Your task to perform on an android device: toggle pop-ups in chrome Image 0: 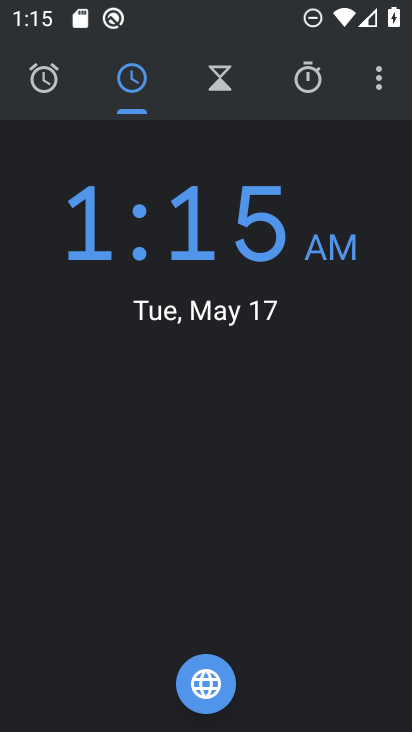
Step 0: press back button
Your task to perform on an android device: toggle pop-ups in chrome Image 1: 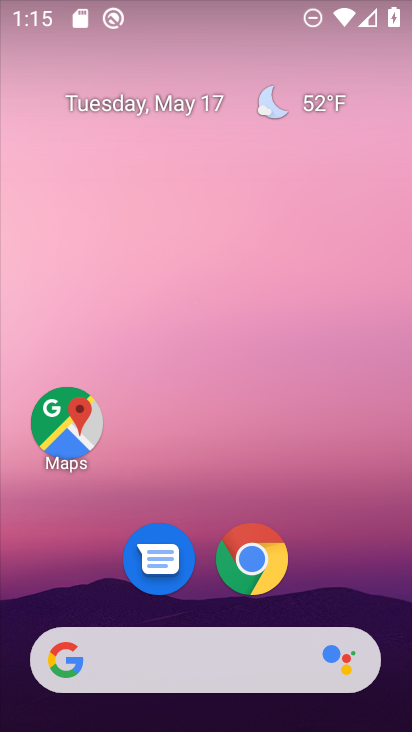
Step 1: click (256, 552)
Your task to perform on an android device: toggle pop-ups in chrome Image 2: 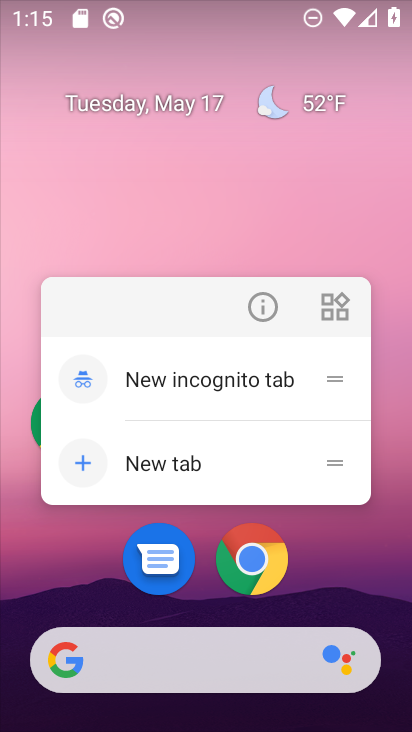
Step 2: click (249, 561)
Your task to perform on an android device: toggle pop-ups in chrome Image 3: 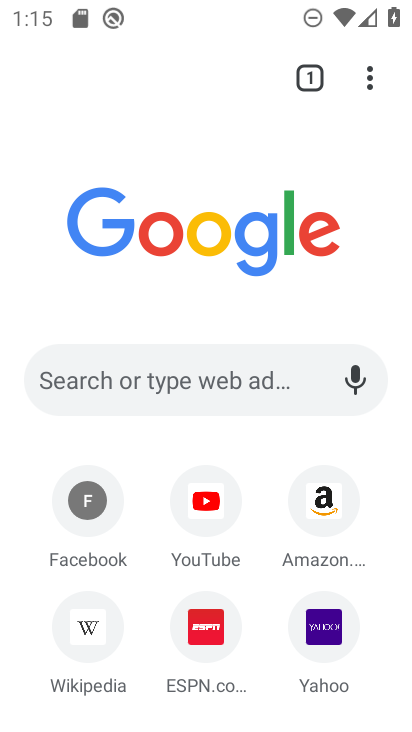
Step 3: click (369, 74)
Your task to perform on an android device: toggle pop-ups in chrome Image 4: 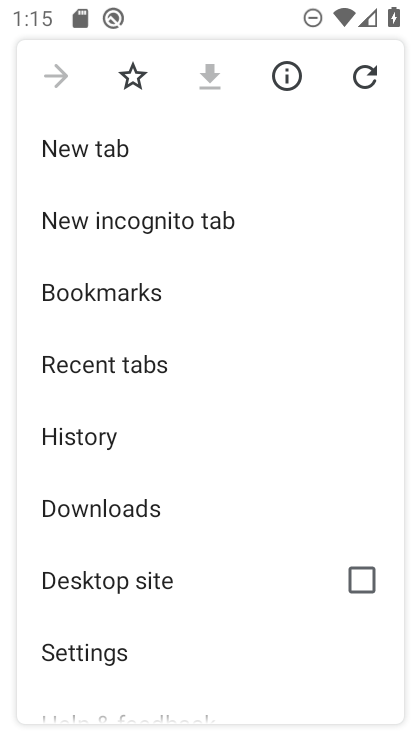
Step 4: drag from (235, 450) to (246, 346)
Your task to perform on an android device: toggle pop-ups in chrome Image 5: 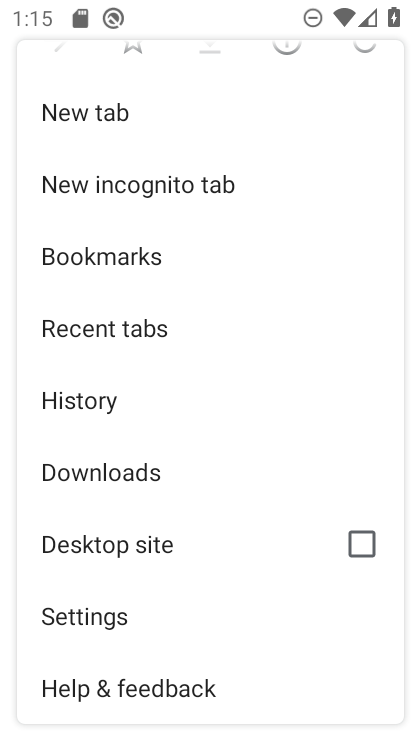
Step 5: drag from (199, 485) to (205, 376)
Your task to perform on an android device: toggle pop-ups in chrome Image 6: 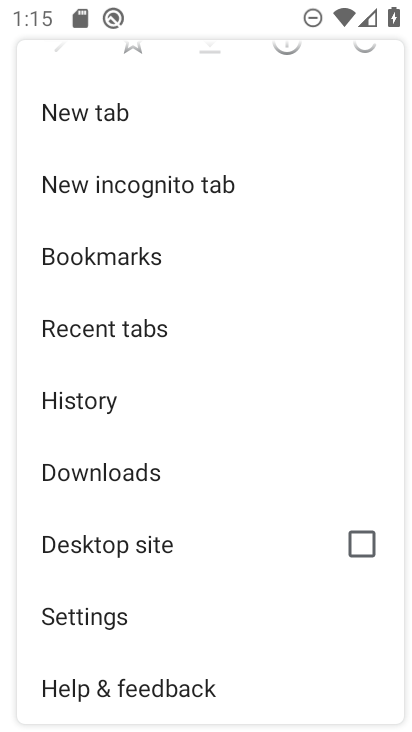
Step 6: click (80, 613)
Your task to perform on an android device: toggle pop-ups in chrome Image 7: 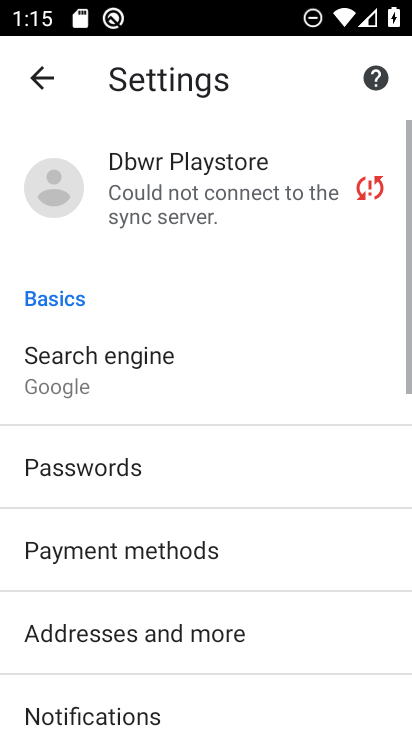
Step 7: drag from (119, 566) to (176, 445)
Your task to perform on an android device: toggle pop-ups in chrome Image 8: 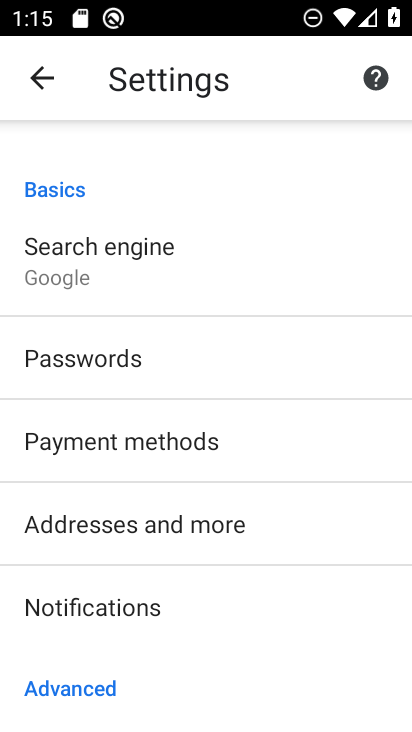
Step 8: drag from (134, 577) to (171, 468)
Your task to perform on an android device: toggle pop-ups in chrome Image 9: 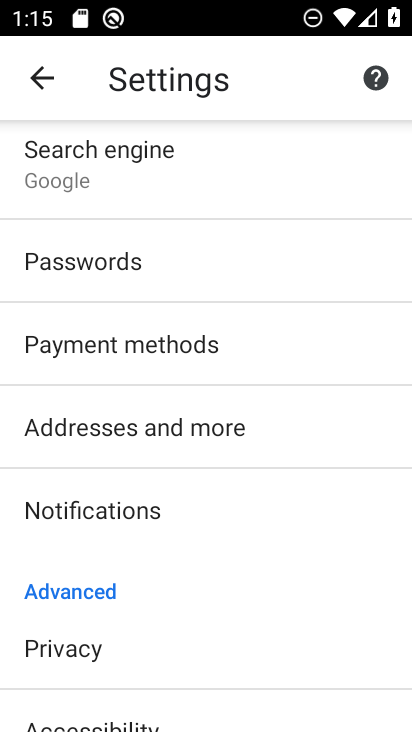
Step 9: drag from (110, 650) to (136, 513)
Your task to perform on an android device: toggle pop-ups in chrome Image 10: 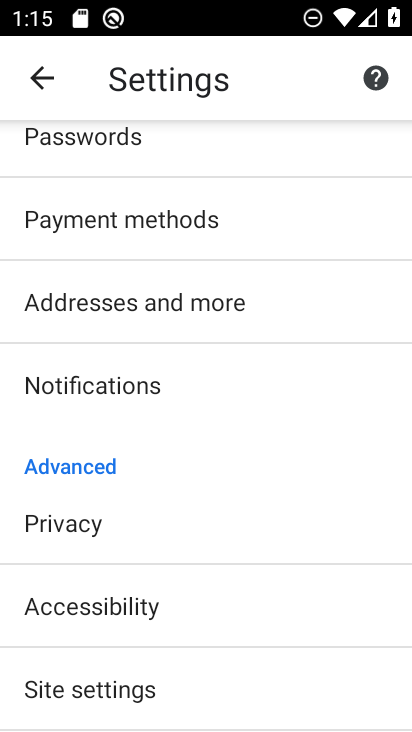
Step 10: drag from (110, 622) to (135, 538)
Your task to perform on an android device: toggle pop-ups in chrome Image 11: 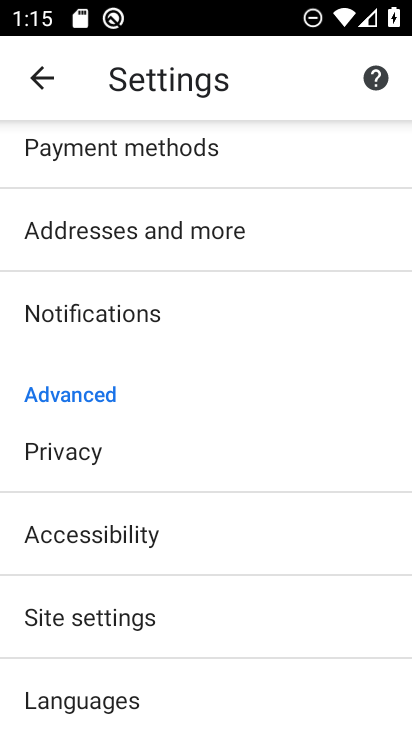
Step 11: drag from (116, 666) to (178, 569)
Your task to perform on an android device: toggle pop-ups in chrome Image 12: 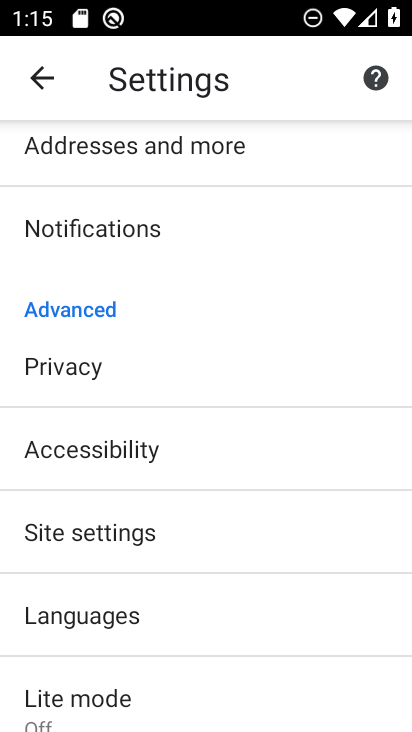
Step 12: click (133, 530)
Your task to perform on an android device: toggle pop-ups in chrome Image 13: 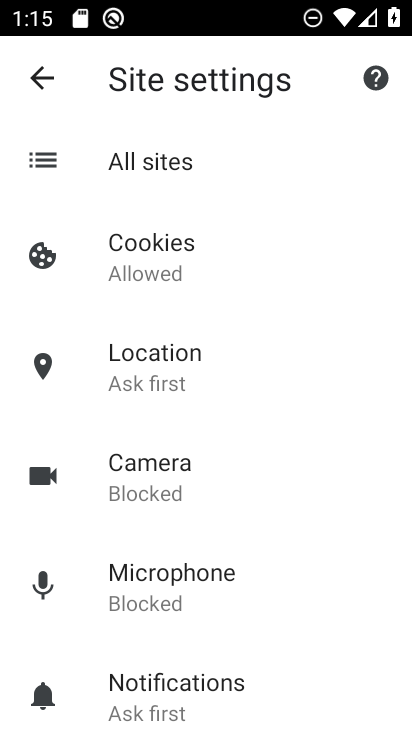
Step 13: drag from (163, 640) to (168, 517)
Your task to perform on an android device: toggle pop-ups in chrome Image 14: 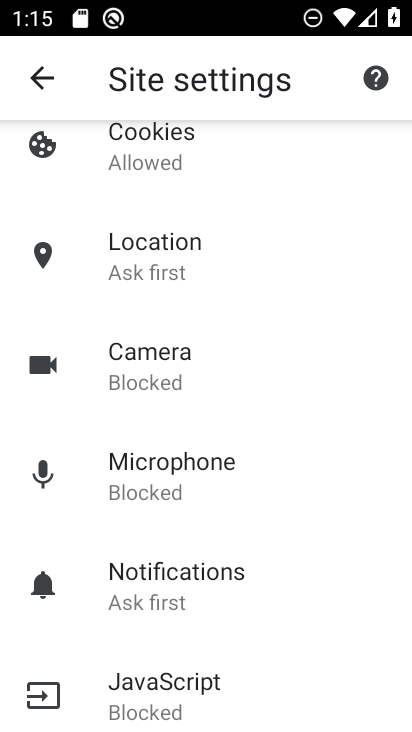
Step 14: drag from (149, 614) to (215, 505)
Your task to perform on an android device: toggle pop-ups in chrome Image 15: 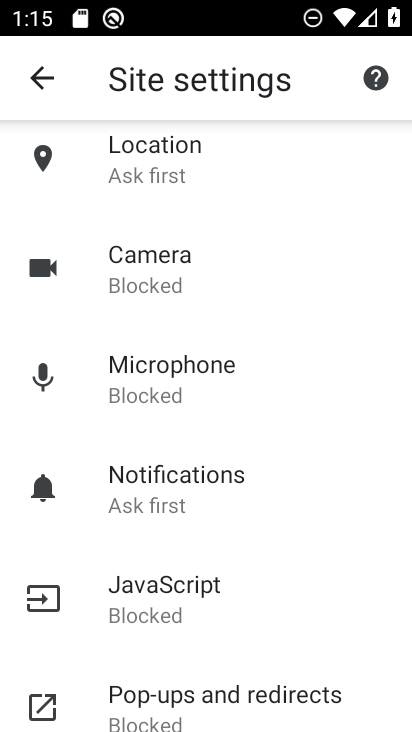
Step 15: drag from (161, 643) to (245, 480)
Your task to perform on an android device: toggle pop-ups in chrome Image 16: 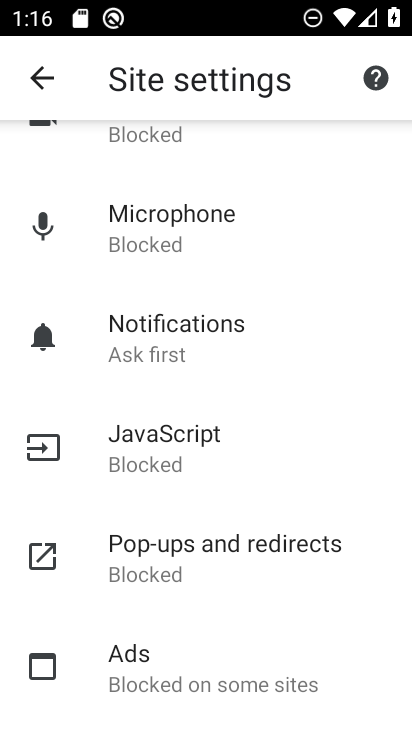
Step 16: click (168, 552)
Your task to perform on an android device: toggle pop-ups in chrome Image 17: 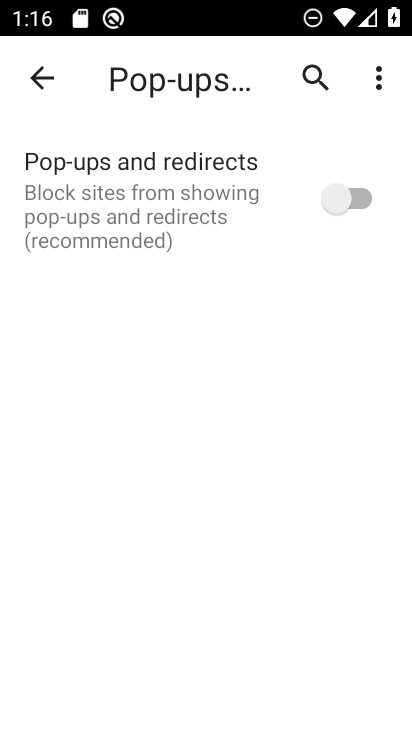
Step 17: click (329, 205)
Your task to perform on an android device: toggle pop-ups in chrome Image 18: 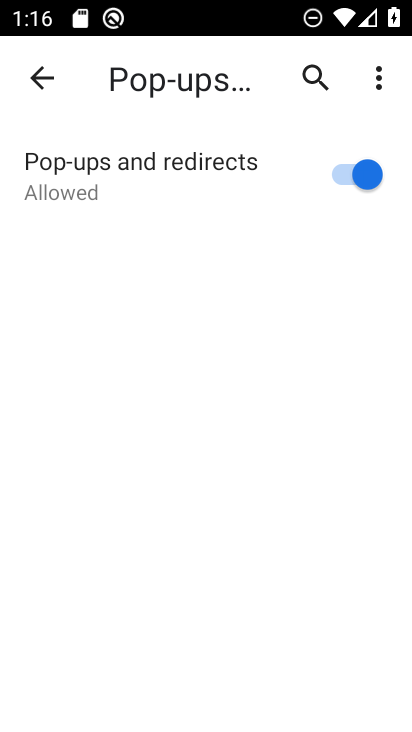
Step 18: task complete